Your task to perform on an android device: Go to Yahoo.com Image 0: 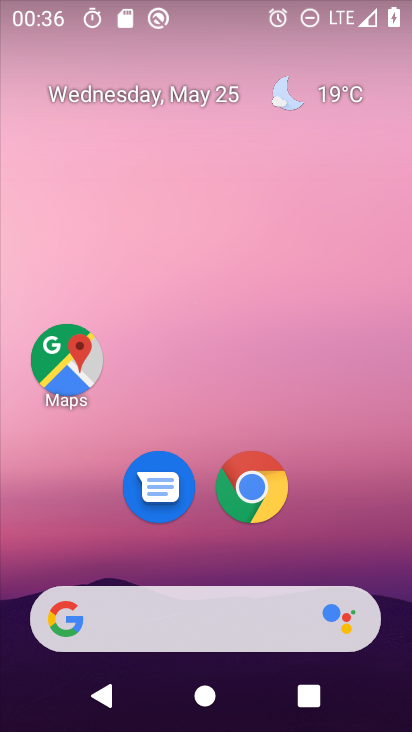
Step 0: click (257, 493)
Your task to perform on an android device: Go to Yahoo.com Image 1: 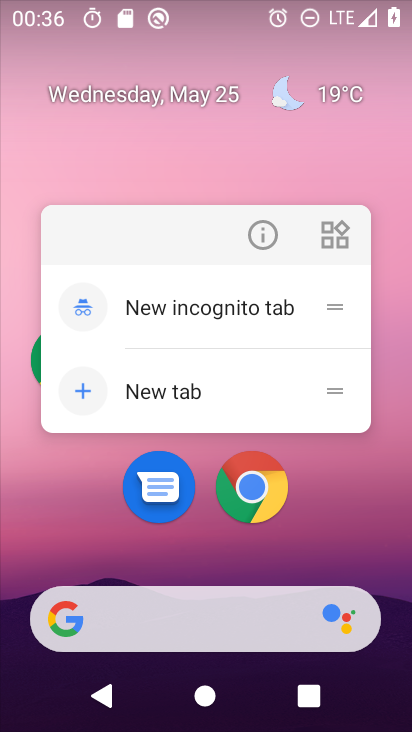
Step 1: click (257, 493)
Your task to perform on an android device: Go to Yahoo.com Image 2: 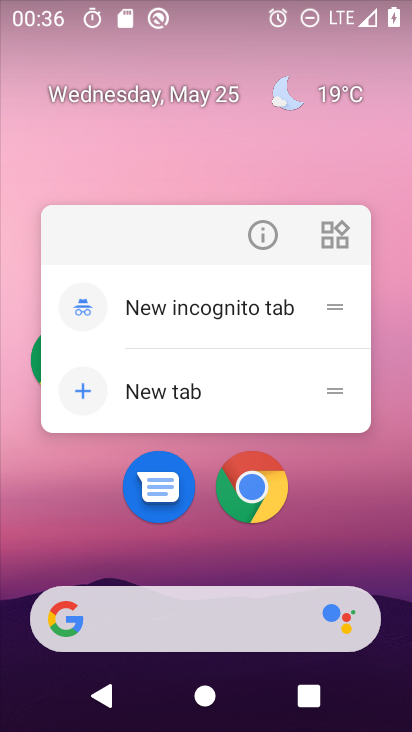
Step 2: click (257, 493)
Your task to perform on an android device: Go to Yahoo.com Image 3: 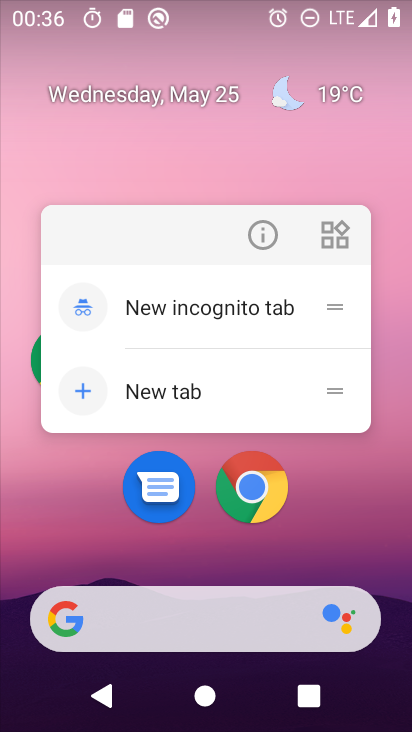
Step 3: click (257, 493)
Your task to perform on an android device: Go to Yahoo.com Image 4: 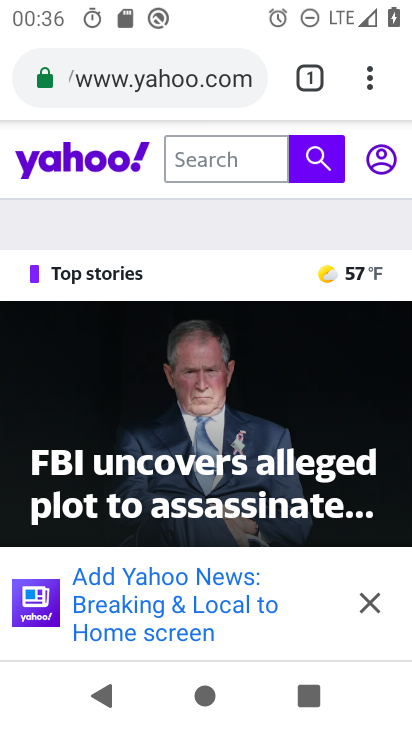
Step 4: task complete